Your task to perform on an android device: Open Reddit.com Image 0: 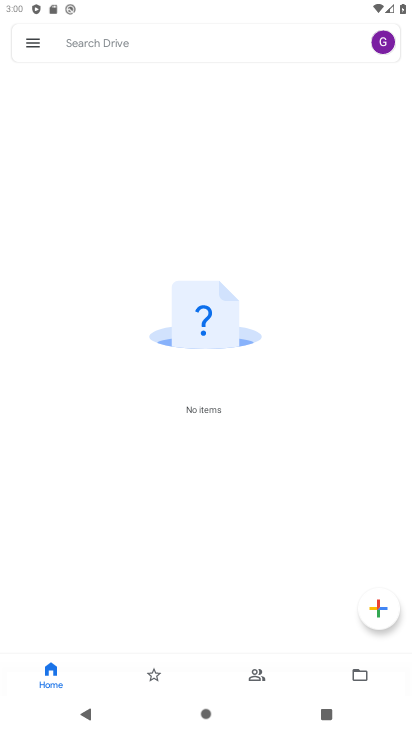
Step 0: press home button
Your task to perform on an android device: Open Reddit.com Image 1: 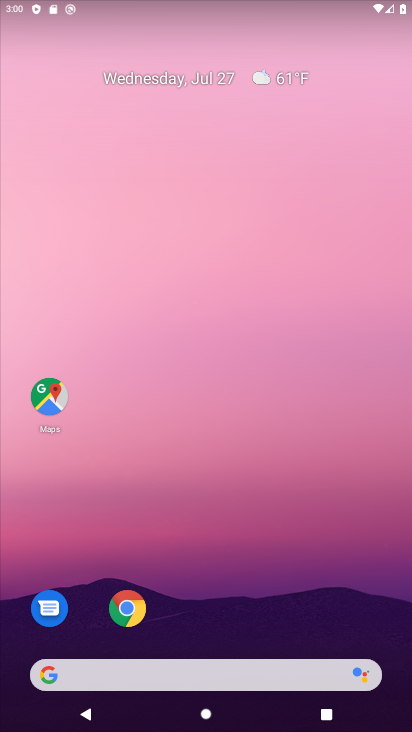
Step 1: click (132, 613)
Your task to perform on an android device: Open Reddit.com Image 2: 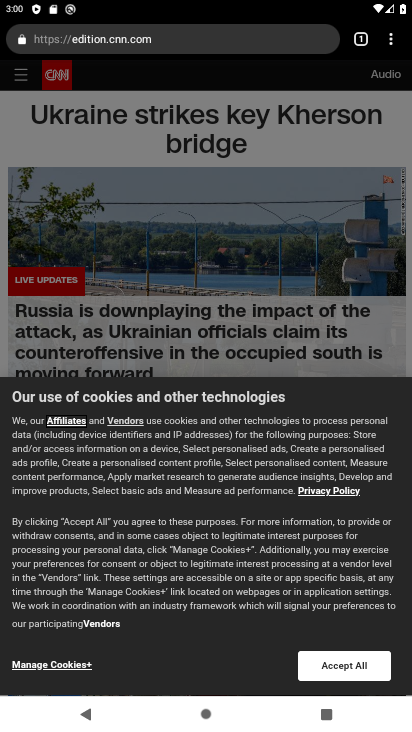
Step 2: click (98, 44)
Your task to perform on an android device: Open Reddit.com Image 3: 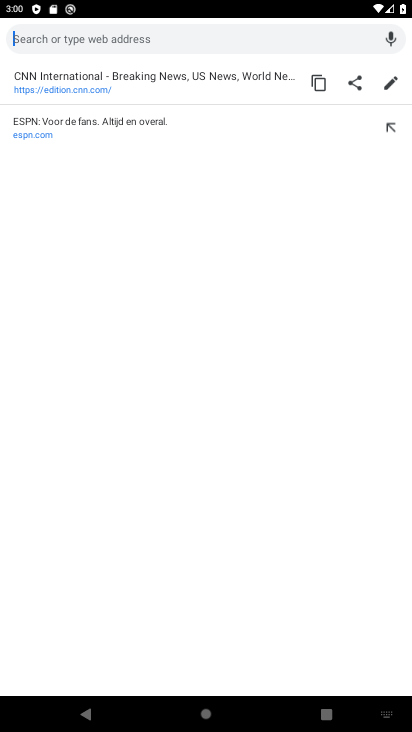
Step 3: type "Reddit.com"
Your task to perform on an android device: Open Reddit.com Image 4: 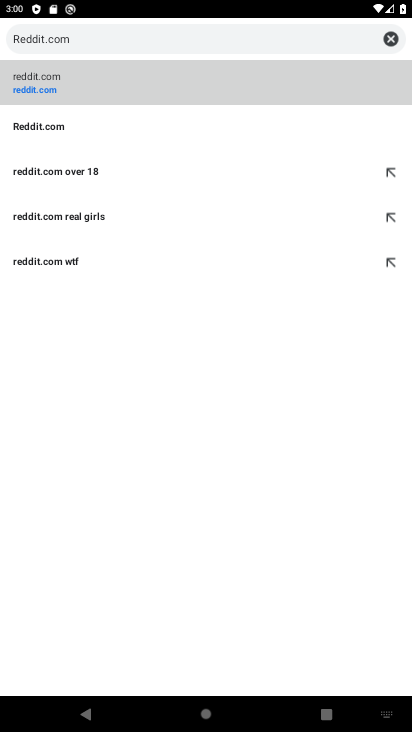
Step 4: click (238, 77)
Your task to perform on an android device: Open Reddit.com Image 5: 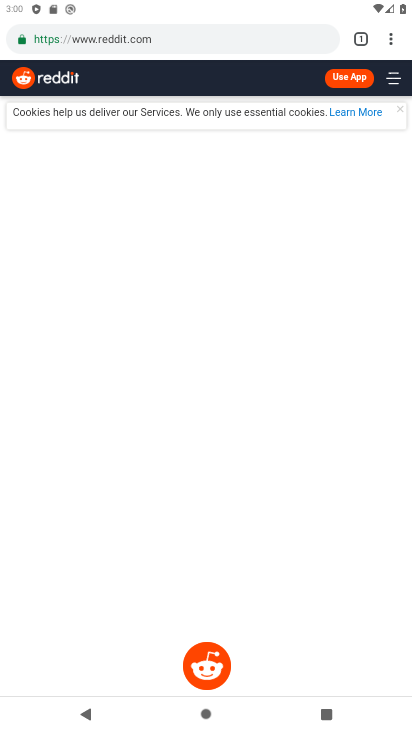
Step 5: task complete